Your task to perform on an android device: Search for sushi restaurants on Maps Image 0: 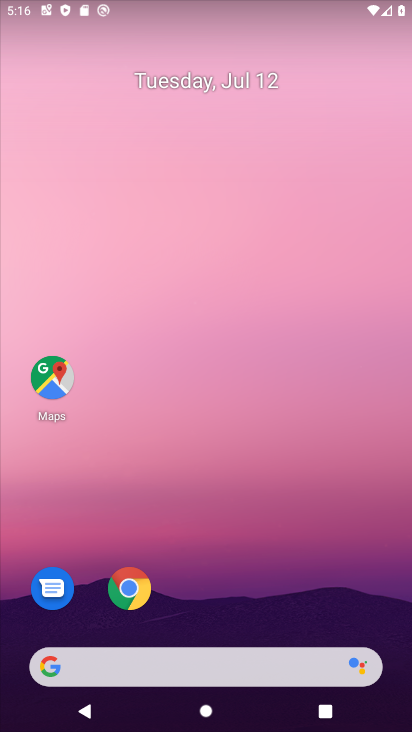
Step 0: drag from (232, 466) to (228, 22)
Your task to perform on an android device: Search for sushi restaurants on Maps Image 1: 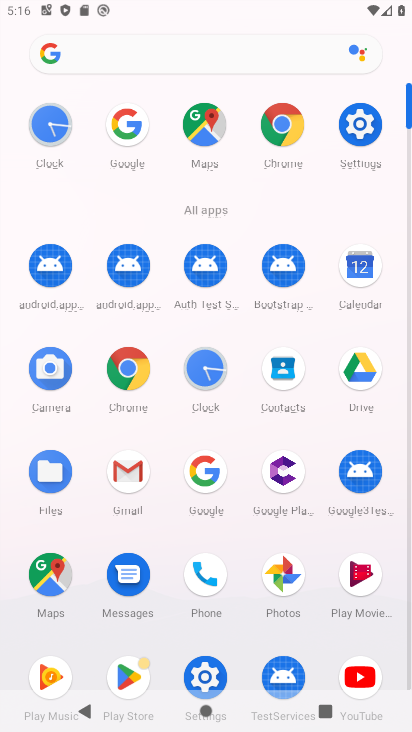
Step 1: click (48, 565)
Your task to perform on an android device: Search for sushi restaurants on Maps Image 2: 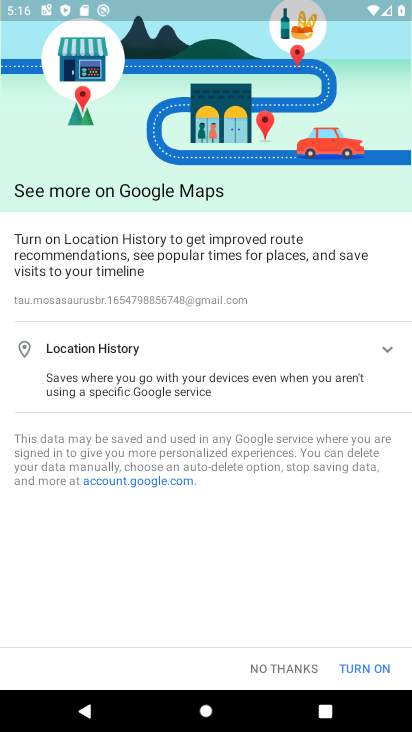
Step 2: click (248, 663)
Your task to perform on an android device: Search for sushi restaurants on Maps Image 3: 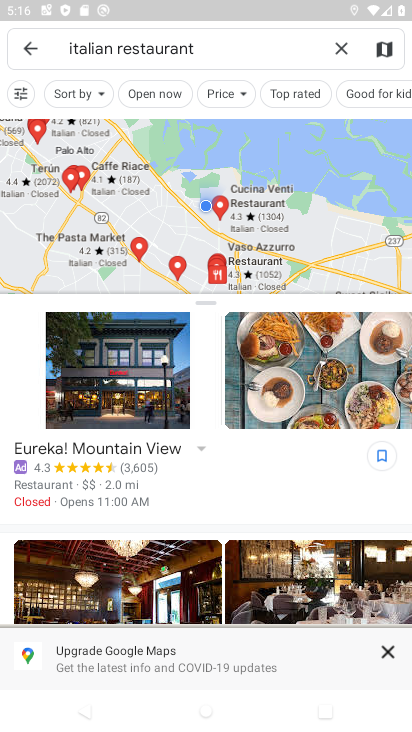
Step 3: click (20, 55)
Your task to perform on an android device: Search for sushi restaurants on Maps Image 4: 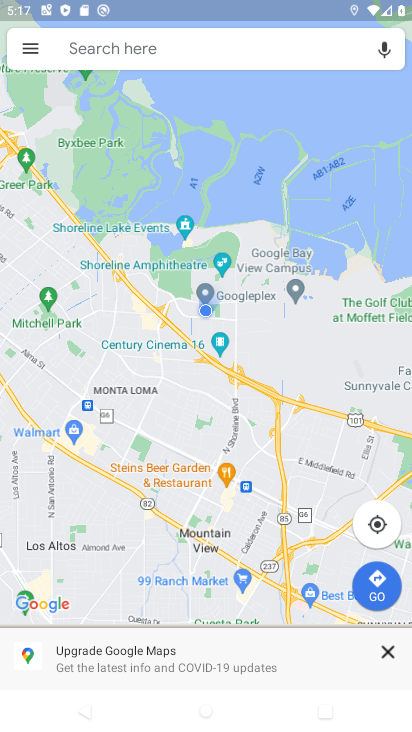
Step 4: click (156, 42)
Your task to perform on an android device: Search for sushi restaurants on Maps Image 5: 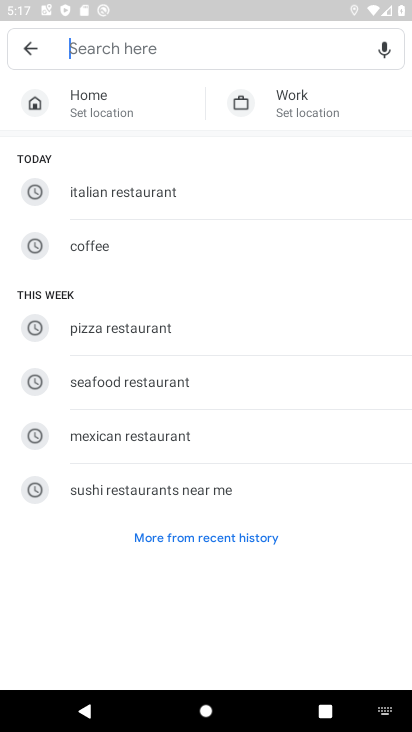
Step 5: click (123, 481)
Your task to perform on an android device: Search for sushi restaurants on Maps Image 6: 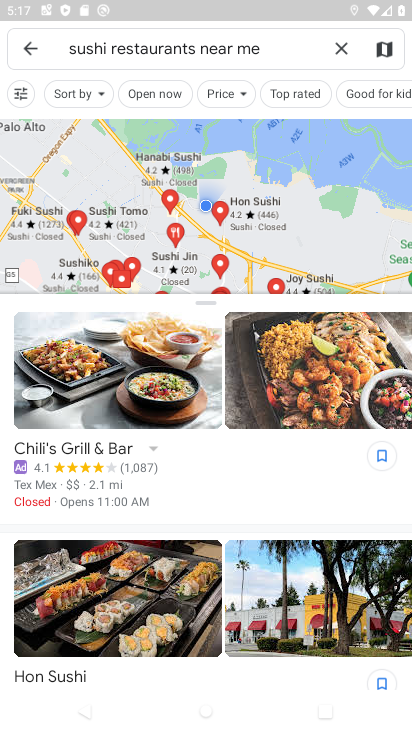
Step 6: task complete